Your task to perform on an android device: Go to notification settings Image 0: 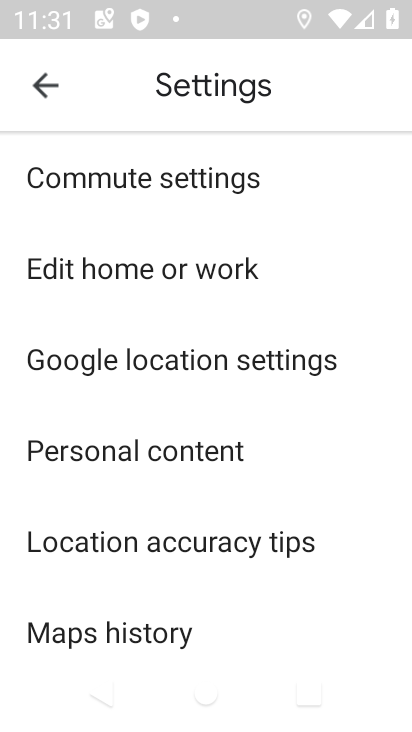
Step 0: press home button
Your task to perform on an android device: Go to notification settings Image 1: 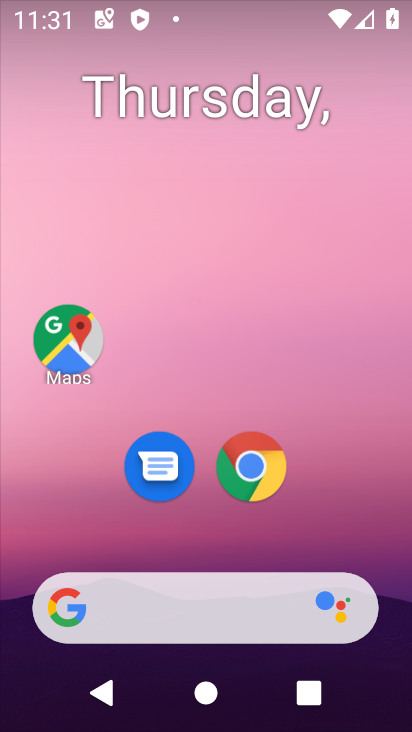
Step 1: drag from (399, 625) to (321, 93)
Your task to perform on an android device: Go to notification settings Image 2: 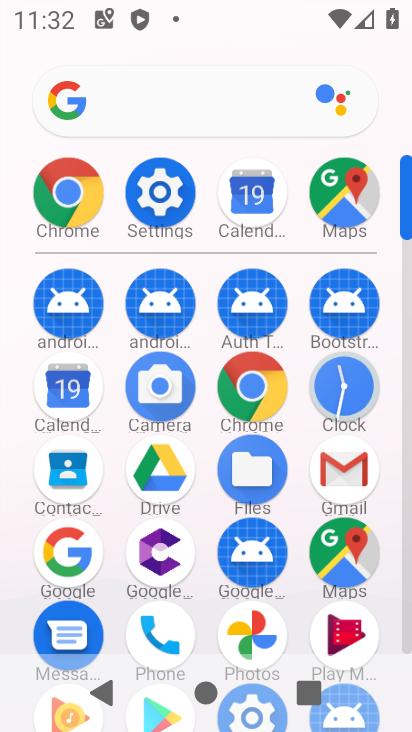
Step 2: click (178, 223)
Your task to perform on an android device: Go to notification settings Image 3: 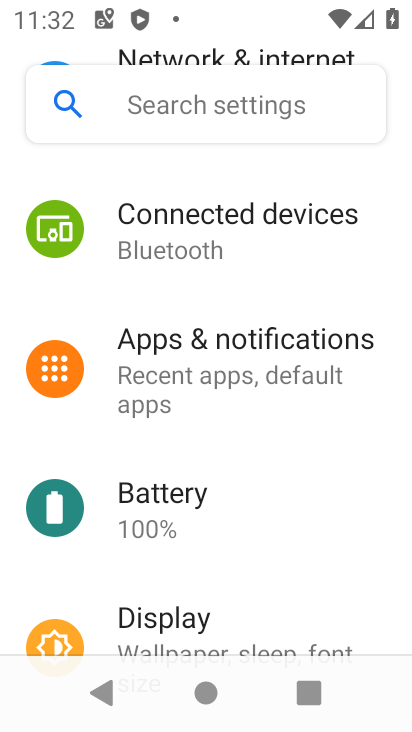
Step 3: drag from (210, 604) to (265, 355)
Your task to perform on an android device: Go to notification settings Image 4: 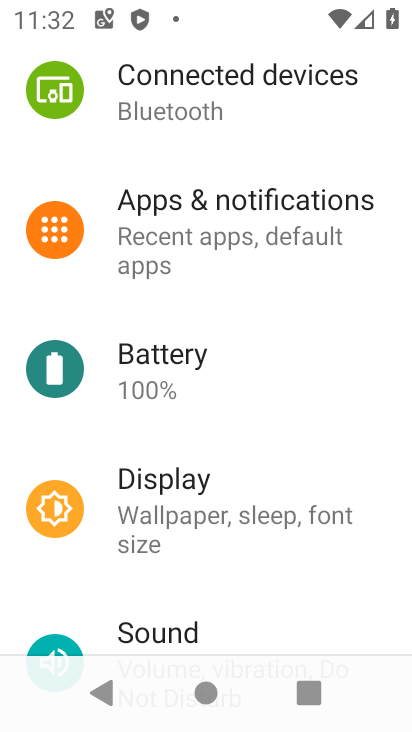
Step 4: click (225, 210)
Your task to perform on an android device: Go to notification settings Image 5: 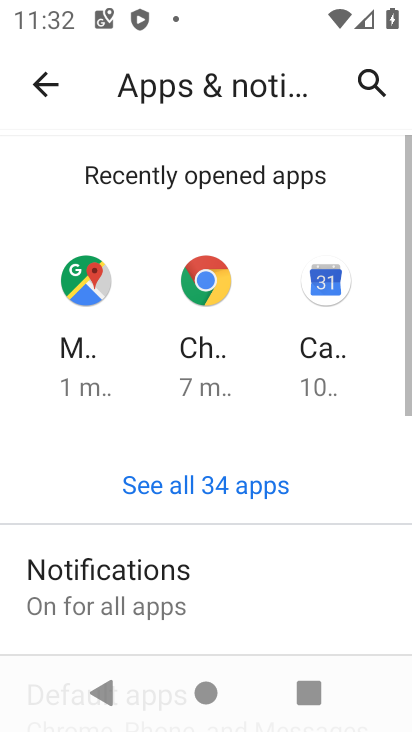
Step 5: click (180, 601)
Your task to perform on an android device: Go to notification settings Image 6: 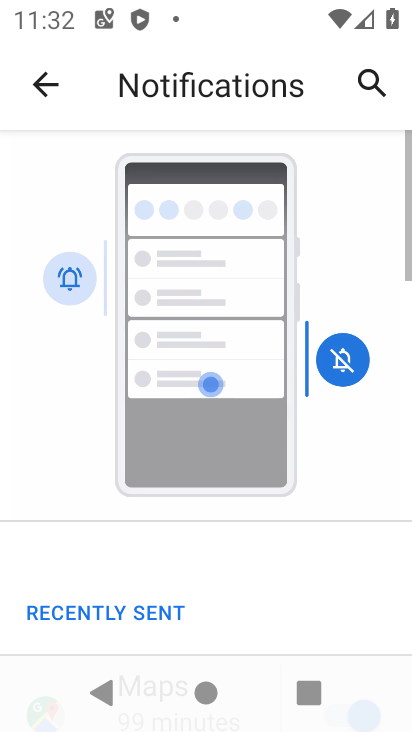
Step 6: task complete